Your task to perform on an android device: What's the weather going to be this weekend? Image 0: 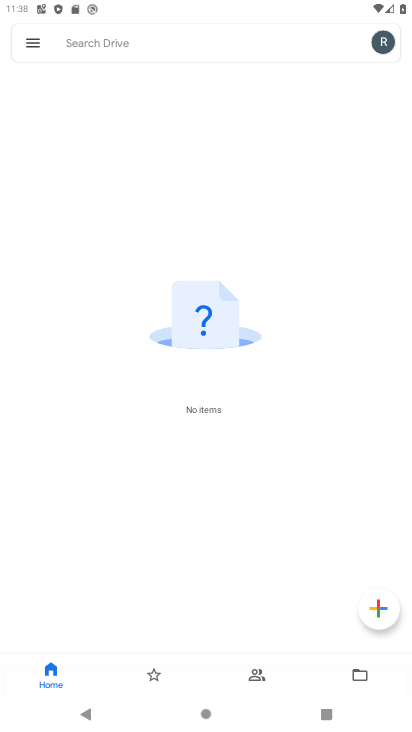
Step 0: press home button
Your task to perform on an android device: What's the weather going to be this weekend? Image 1: 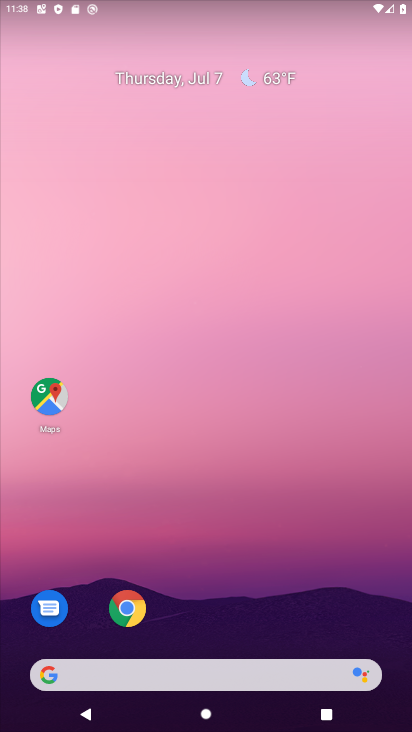
Step 1: click (192, 675)
Your task to perform on an android device: What's the weather going to be this weekend? Image 2: 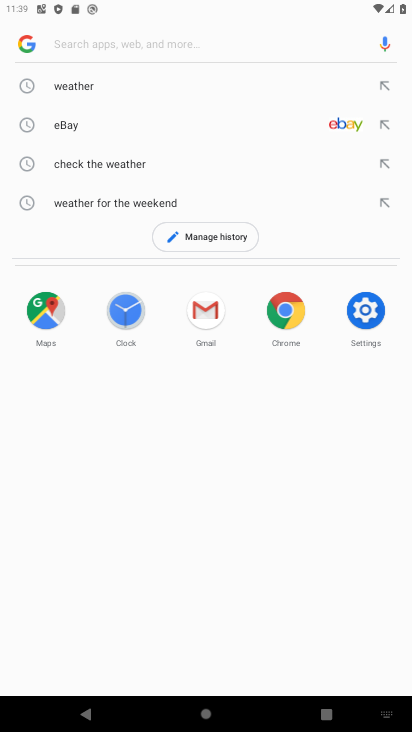
Step 2: click (53, 87)
Your task to perform on an android device: What's the weather going to be this weekend? Image 3: 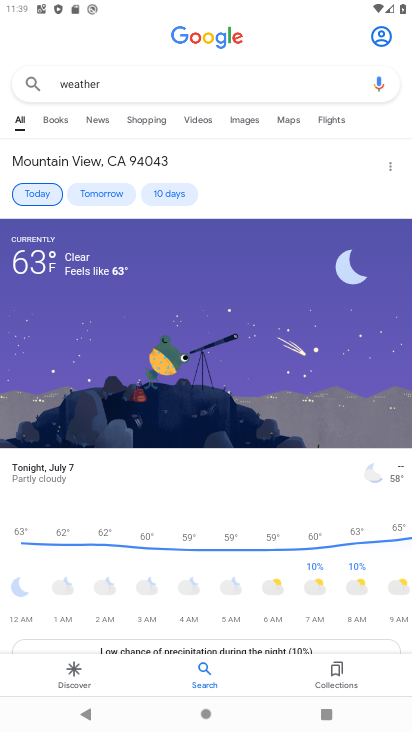
Step 3: task complete